Your task to perform on an android device: check data usage Image 0: 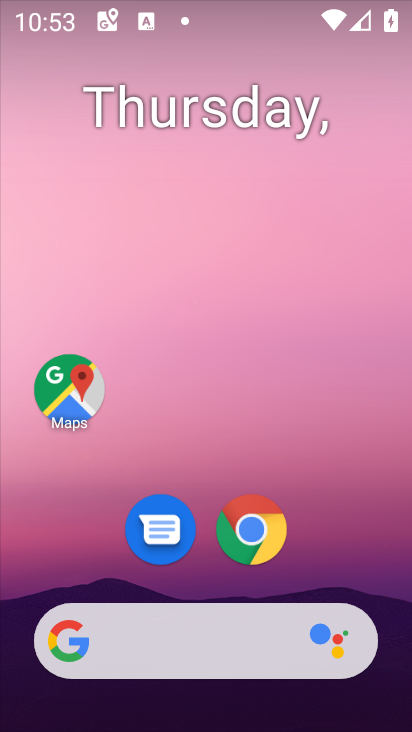
Step 0: drag from (324, 600) to (249, 164)
Your task to perform on an android device: check data usage Image 1: 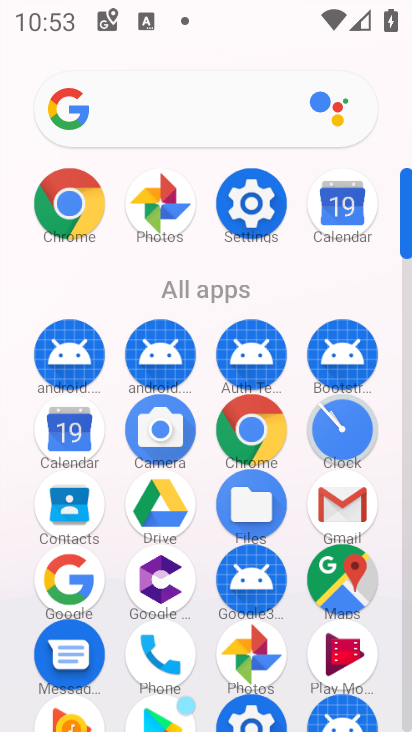
Step 1: click (256, 229)
Your task to perform on an android device: check data usage Image 2: 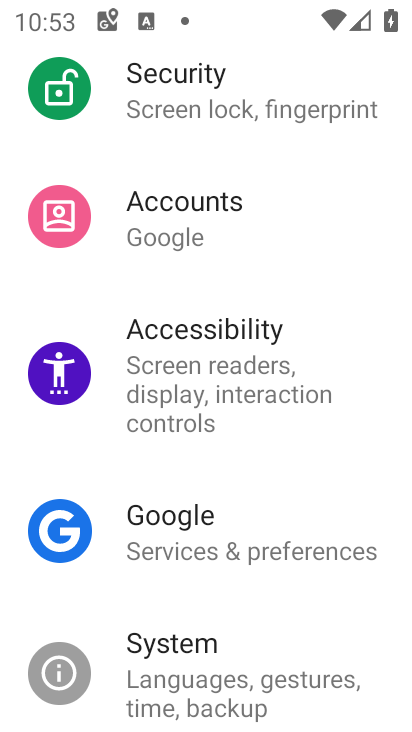
Step 2: drag from (266, 267) to (334, 687)
Your task to perform on an android device: check data usage Image 3: 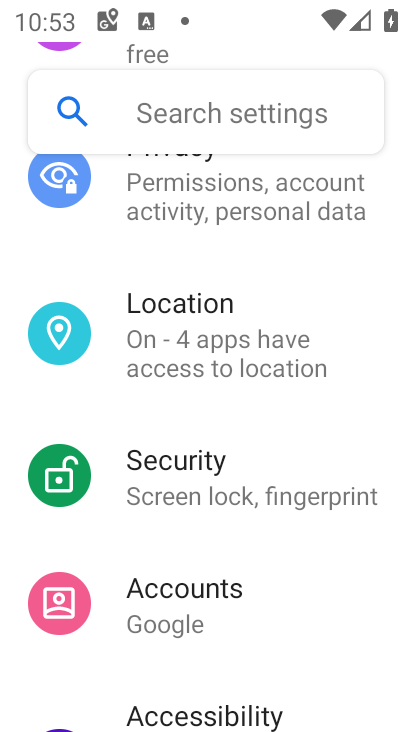
Step 3: drag from (254, 360) to (324, 654)
Your task to perform on an android device: check data usage Image 4: 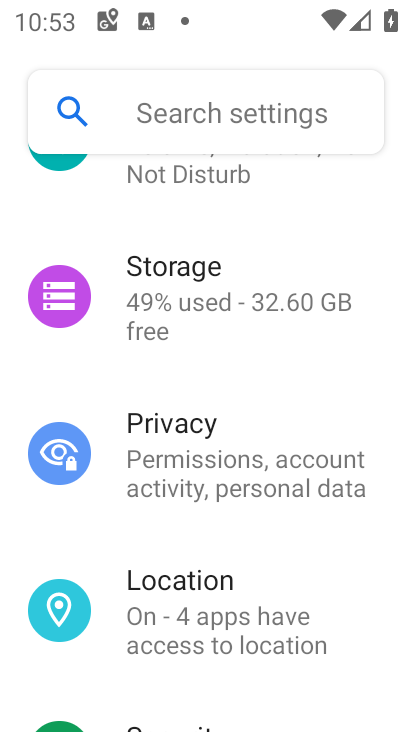
Step 4: drag from (263, 342) to (263, 726)
Your task to perform on an android device: check data usage Image 5: 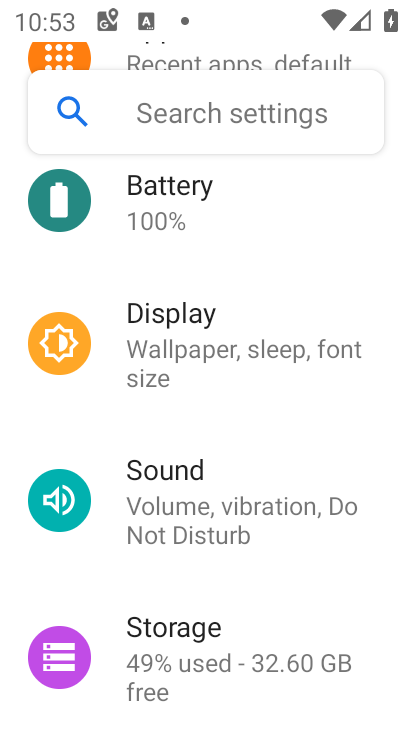
Step 5: drag from (213, 281) to (205, 669)
Your task to perform on an android device: check data usage Image 6: 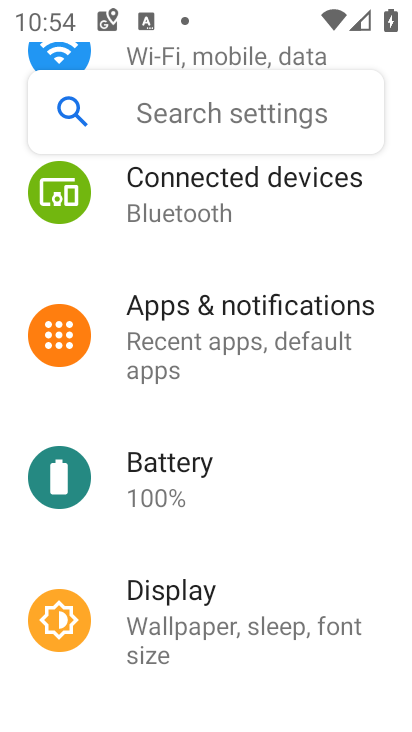
Step 6: drag from (169, 203) to (172, 574)
Your task to perform on an android device: check data usage Image 7: 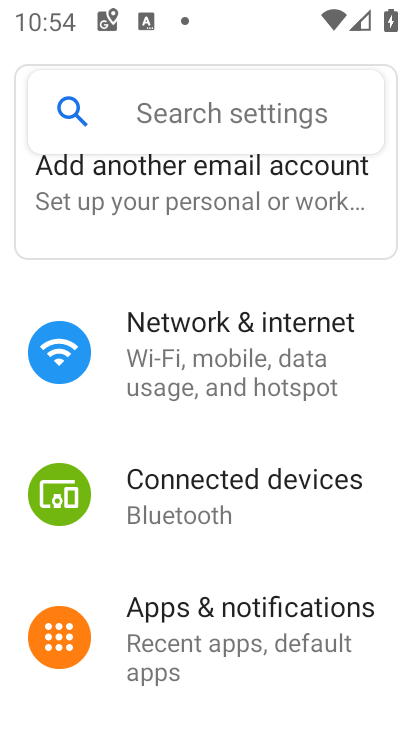
Step 7: click (197, 346)
Your task to perform on an android device: check data usage Image 8: 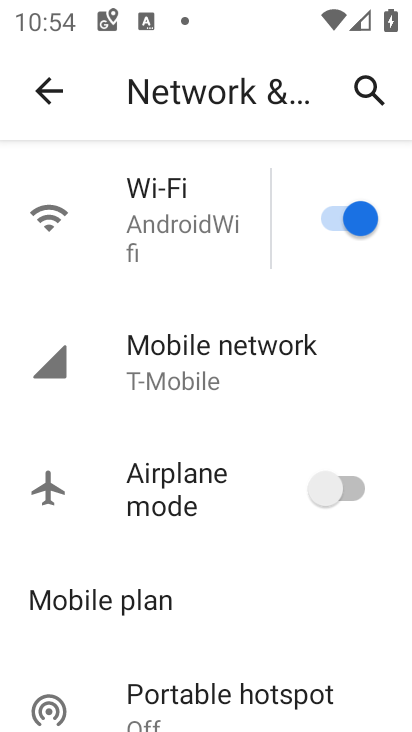
Step 8: click (239, 338)
Your task to perform on an android device: check data usage Image 9: 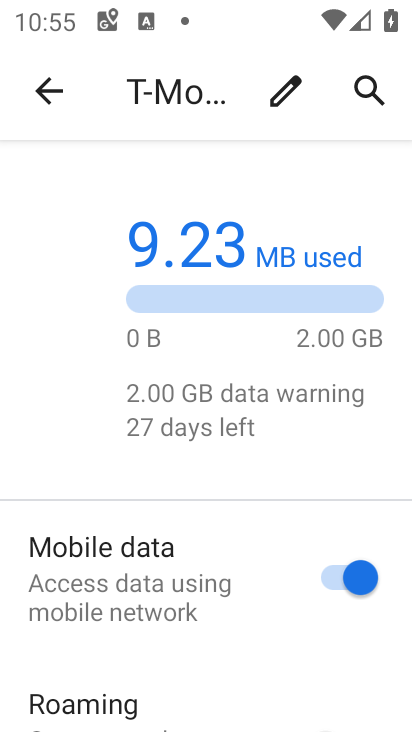
Step 9: drag from (171, 642) to (228, 172)
Your task to perform on an android device: check data usage Image 10: 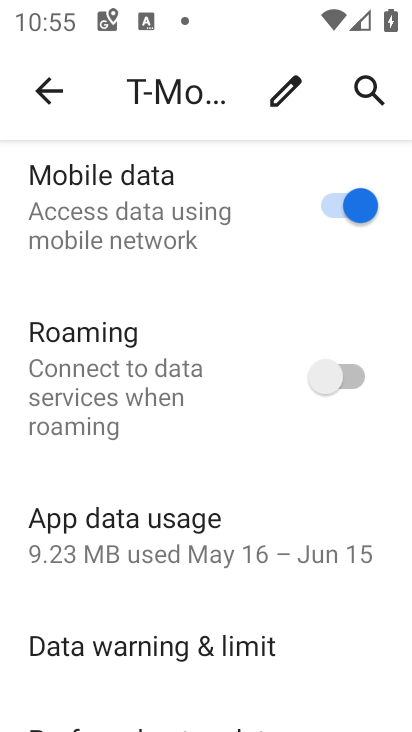
Step 10: drag from (151, 532) to (172, 233)
Your task to perform on an android device: check data usage Image 11: 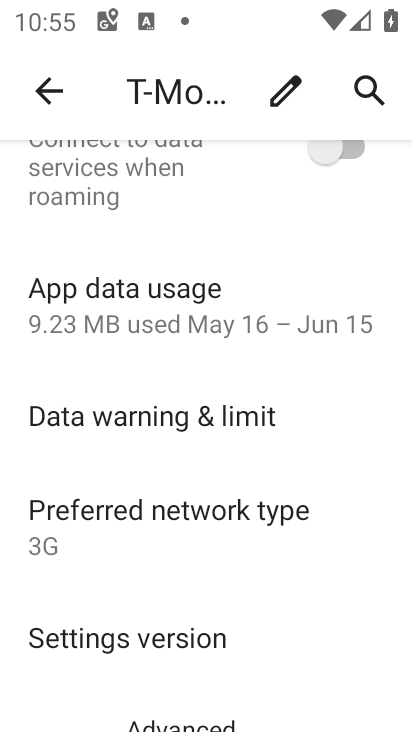
Step 11: click (262, 302)
Your task to perform on an android device: check data usage Image 12: 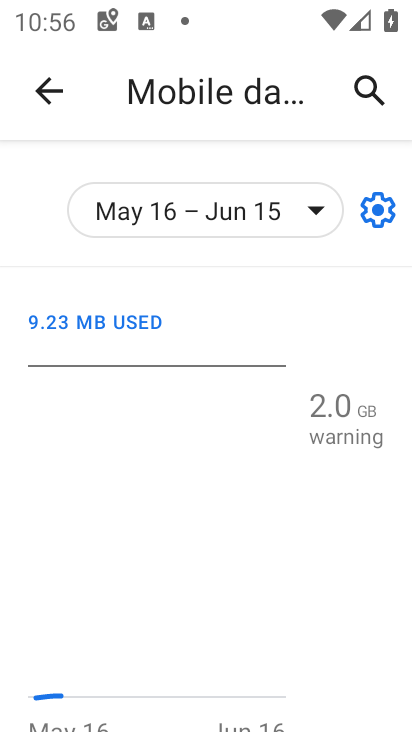
Step 12: task complete